Your task to perform on an android device: Open wifi settings Image 0: 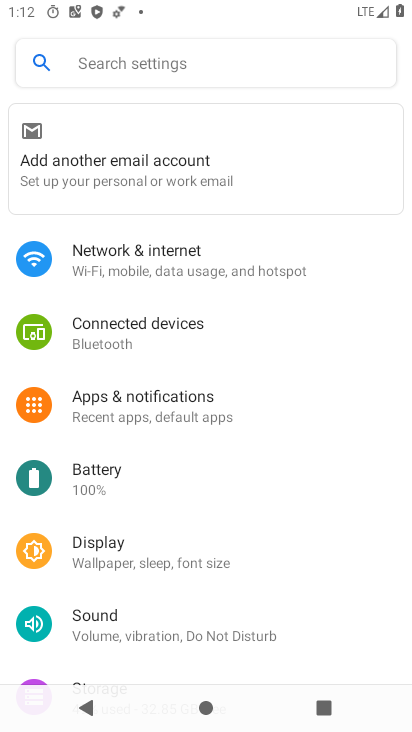
Step 0: press home button
Your task to perform on an android device: Open wifi settings Image 1: 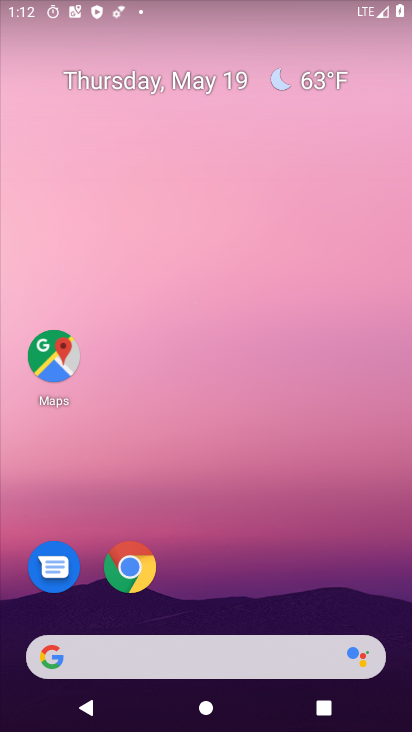
Step 1: drag from (162, 662) to (294, 238)
Your task to perform on an android device: Open wifi settings Image 2: 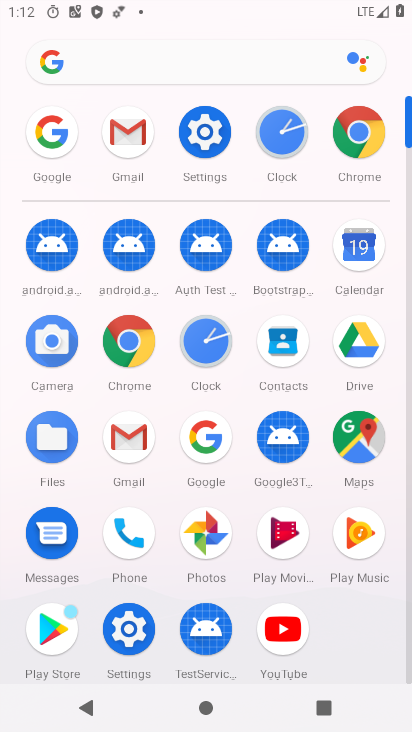
Step 2: click (209, 136)
Your task to perform on an android device: Open wifi settings Image 3: 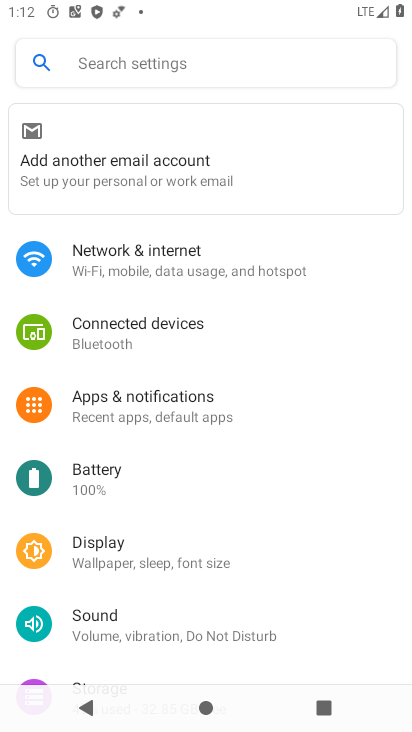
Step 3: click (163, 252)
Your task to perform on an android device: Open wifi settings Image 4: 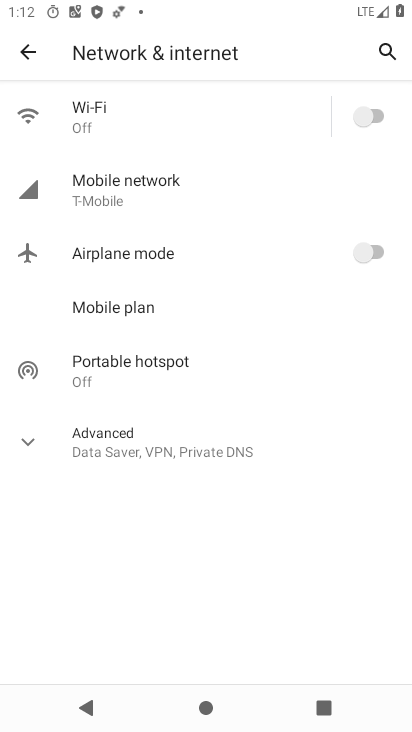
Step 4: click (90, 122)
Your task to perform on an android device: Open wifi settings Image 5: 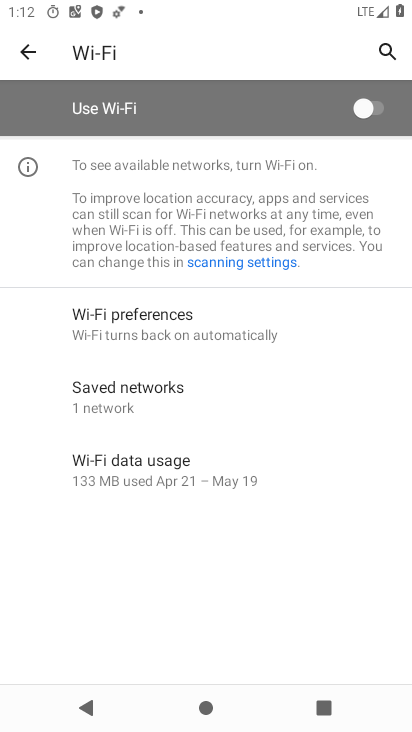
Step 5: task complete